Your task to perform on an android device: Go to Google Image 0: 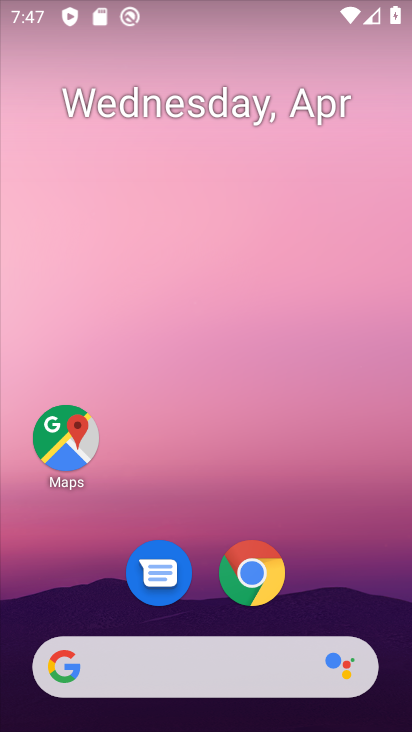
Step 0: drag from (260, 411) to (266, 114)
Your task to perform on an android device: Go to Google Image 1: 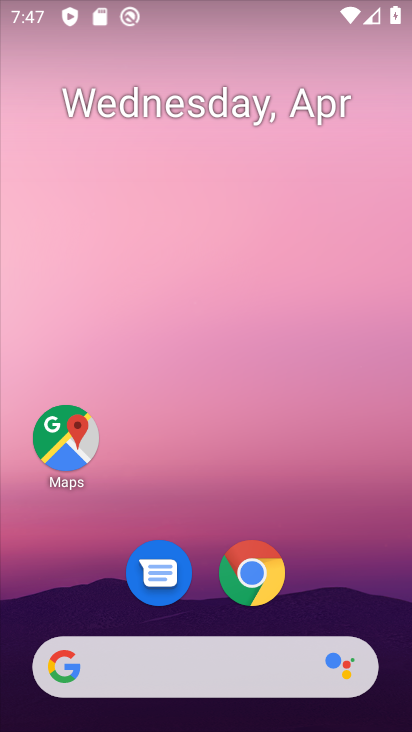
Step 1: drag from (300, 546) to (328, 75)
Your task to perform on an android device: Go to Google Image 2: 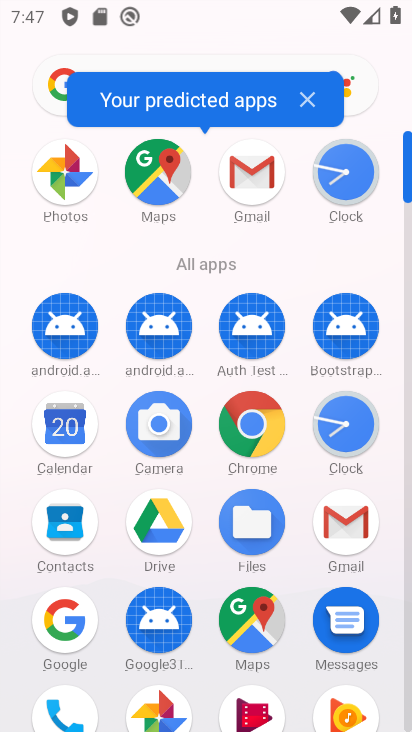
Step 2: click (63, 617)
Your task to perform on an android device: Go to Google Image 3: 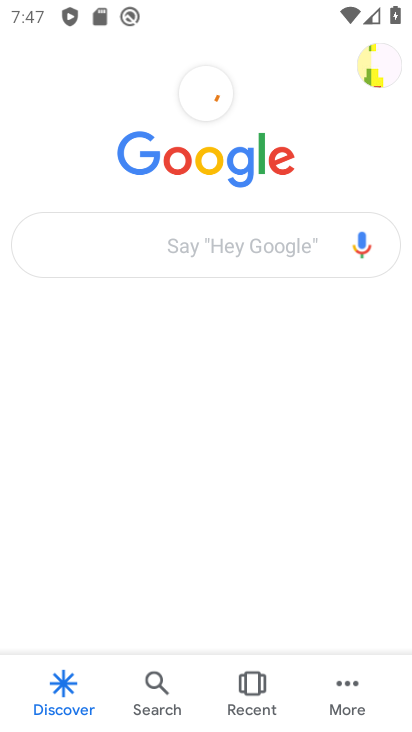
Step 3: task complete